Your task to perform on an android device: add a contact Image 0: 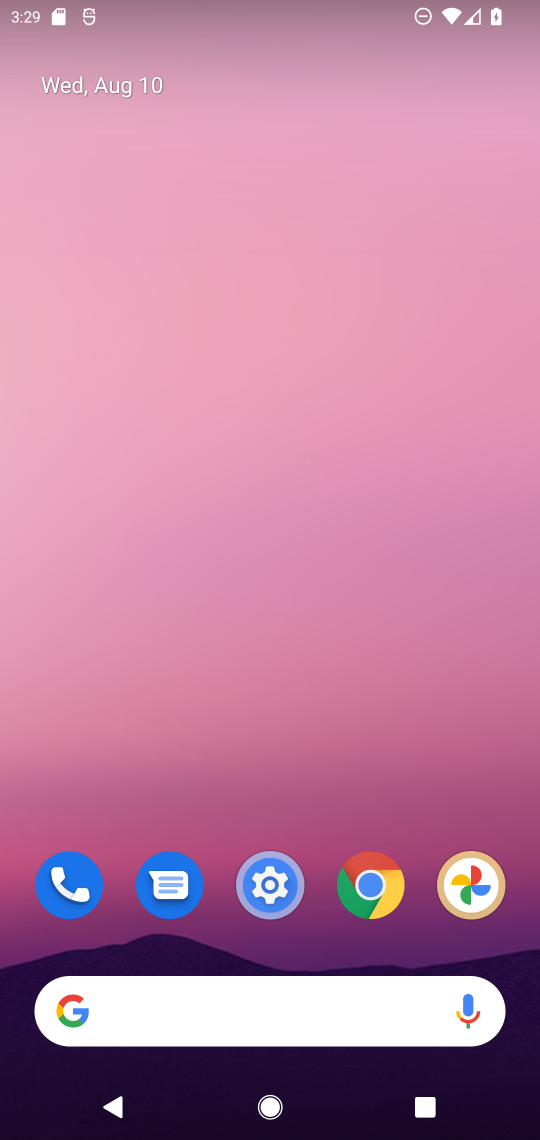
Step 0: drag from (313, 945) to (245, 161)
Your task to perform on an android device: add a contact Image 1: 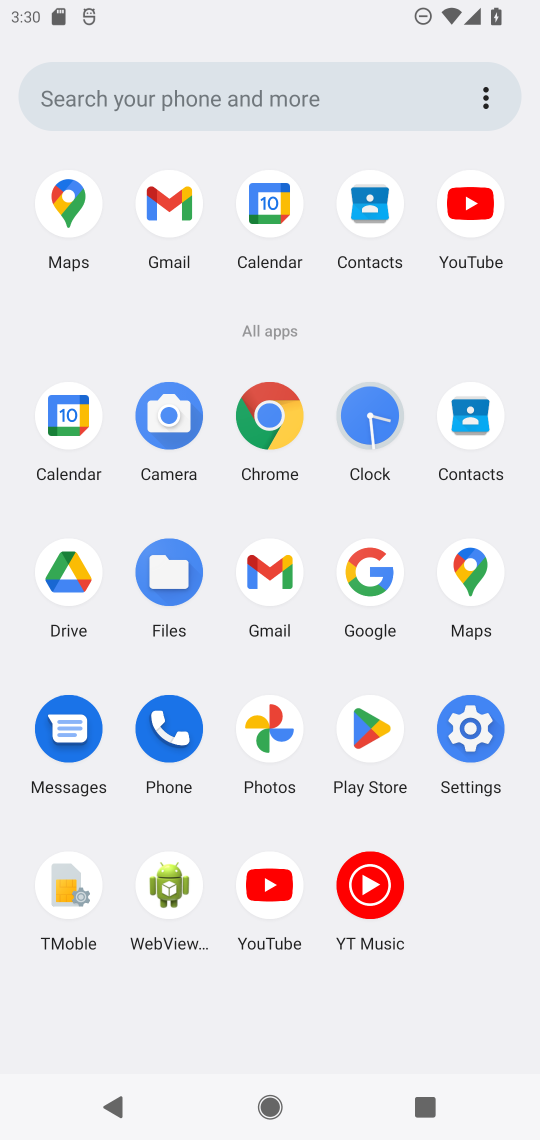
Step 1: click (482, 406)
Your task to perform on an android device: add a contact Image 2: 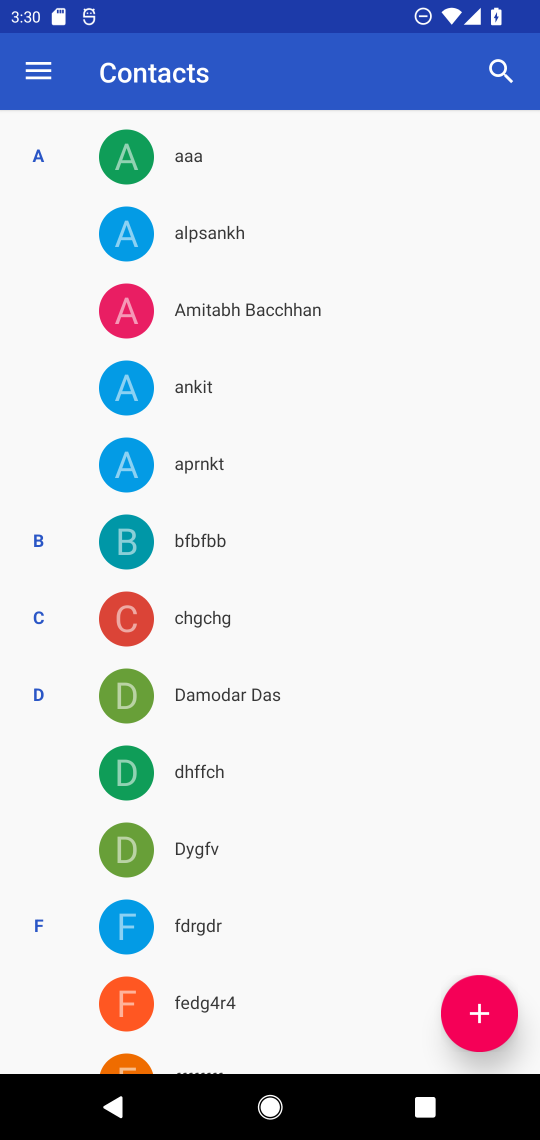
Step 2: click (485, 1011)
Your task to perform on an android device: add a contact Image 3: 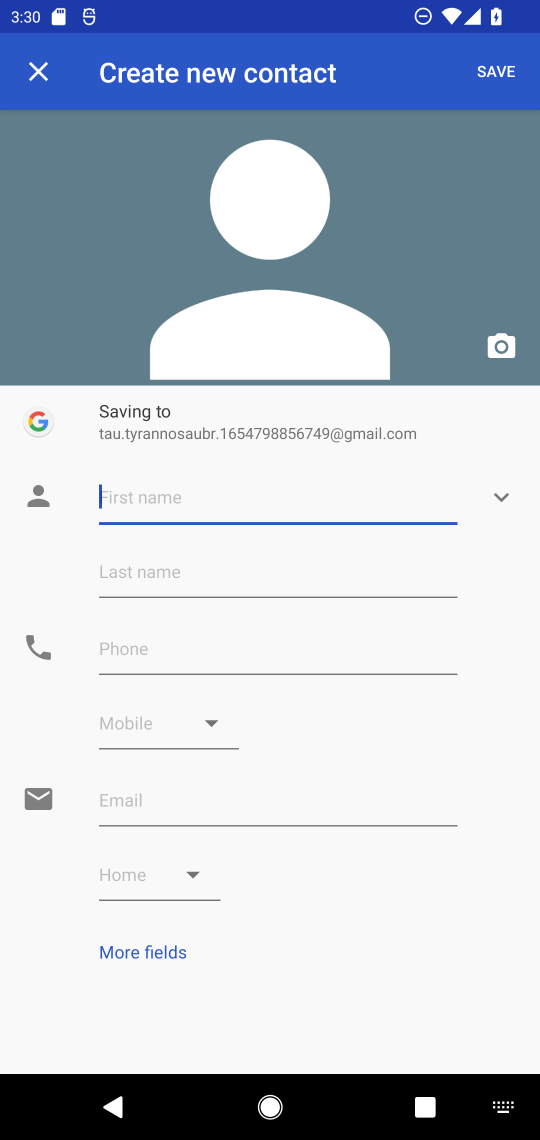
Step 3: type "bb"
Your task to perform on an android device: add a contact Image 4: 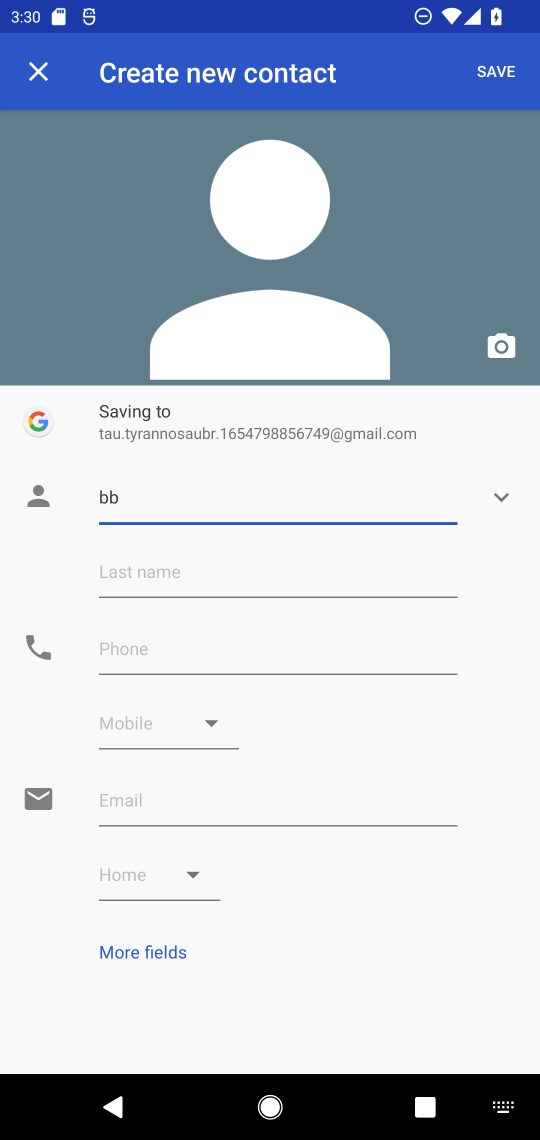
Step 4: click (164, 637)
Your task to perform on an android device: add a contact Image 5: 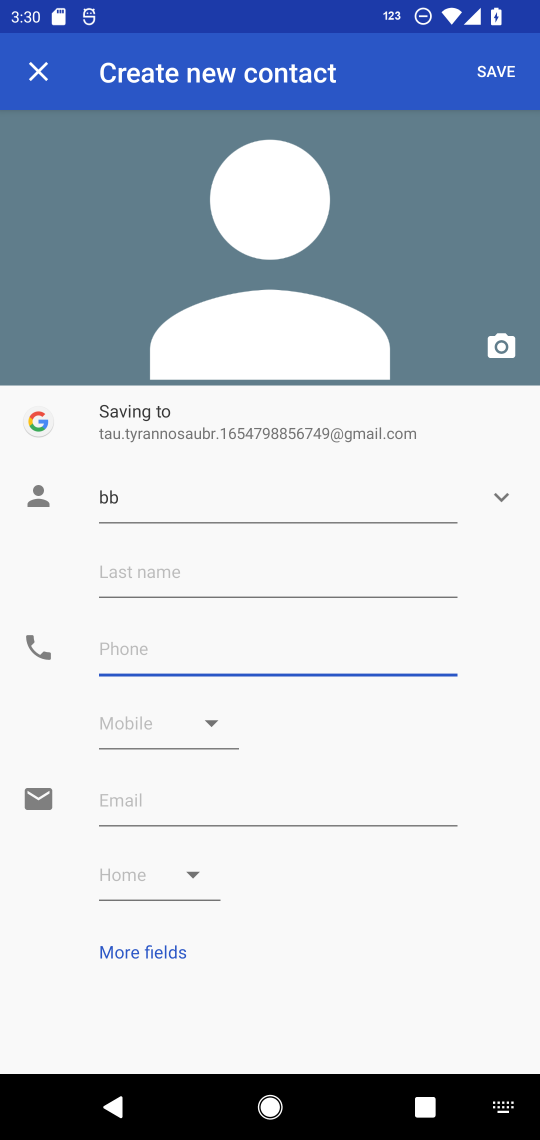
Step 5: type "99"
Your task to perform on an android device: add a contact Image 6: 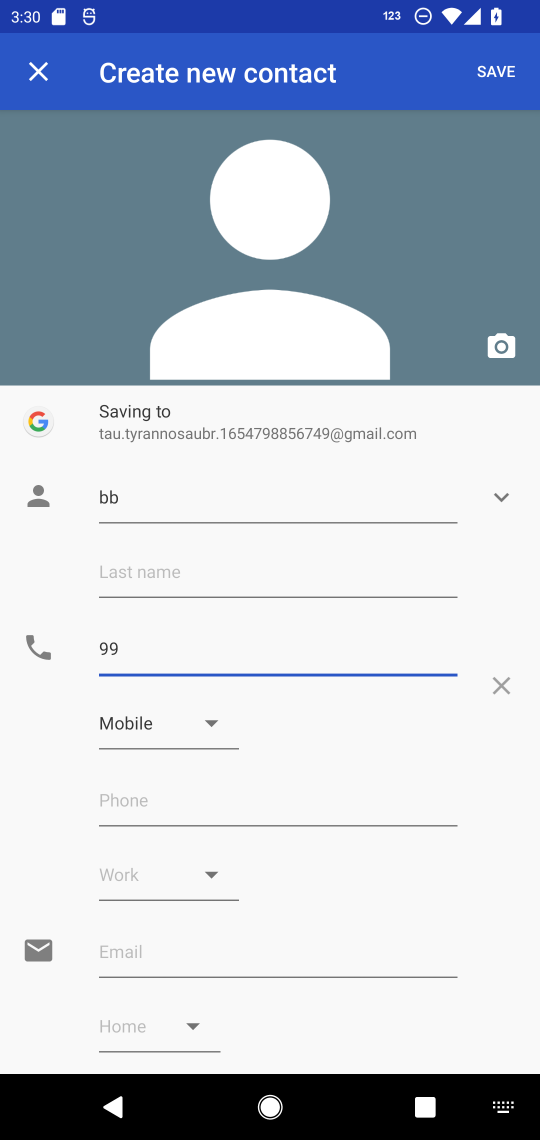
Step 6: click (493, 69)
Your task to perform on an android device: add a contact Image 7: 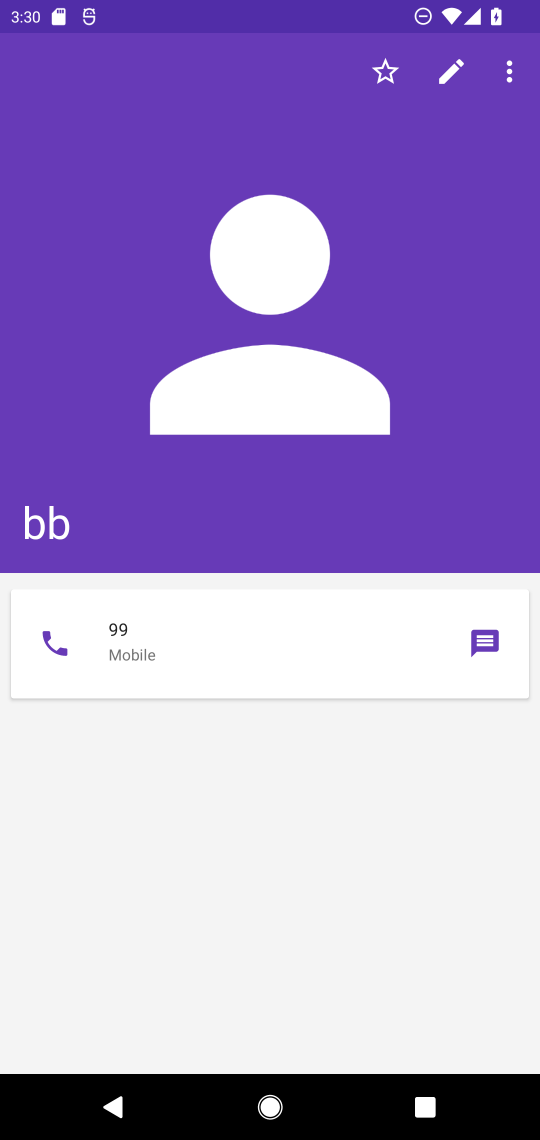
Step 7: task complete